Your task to perform on an android device: What's the weather? Image 0: 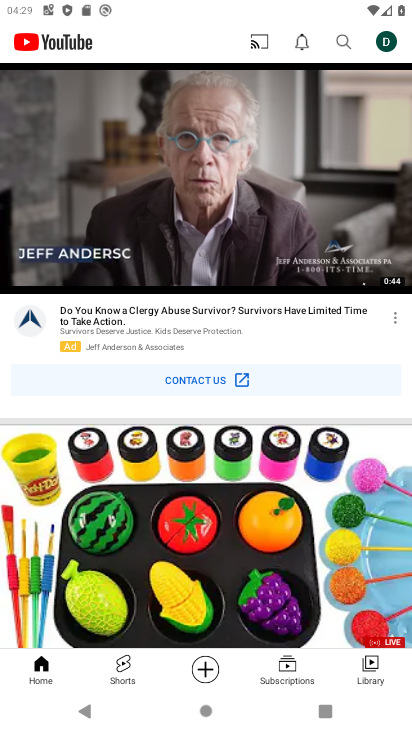
Step 0: press home button
Your task to perform on an android device: What's the weather? Image 1: 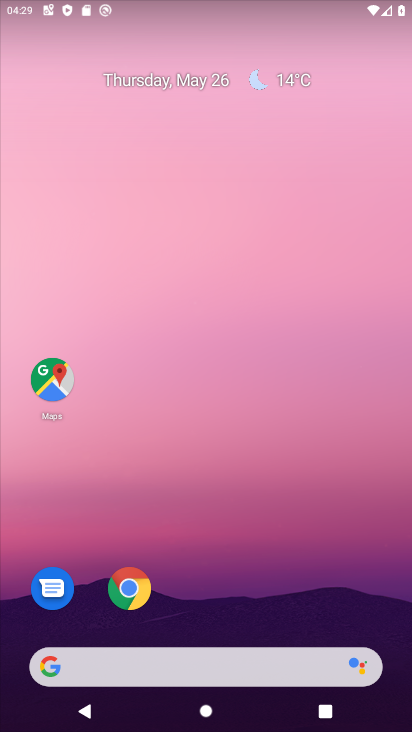
Step 1: click (250, 661)
Your task to perform on an android device: What's the weather? Image 2: 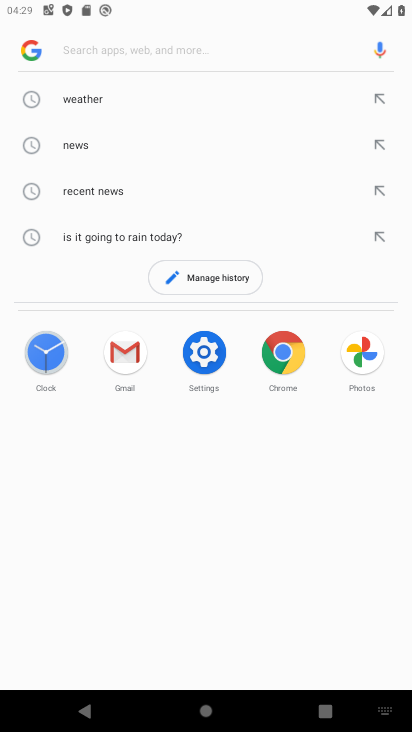
Step 2: click (181, 111)
Your task to perform on an android device: What's the weather? Image 3: 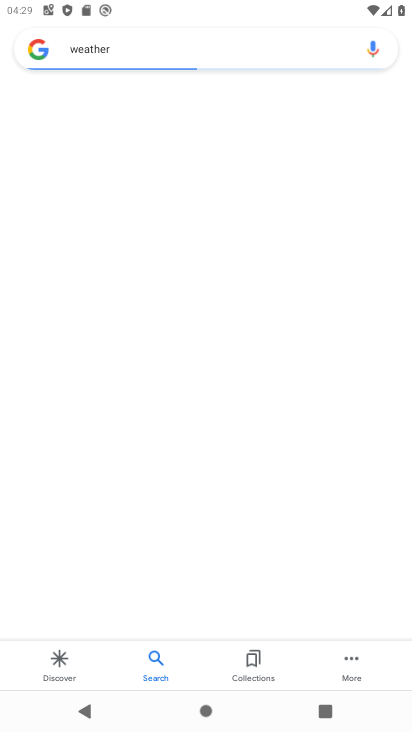
Step 3: task complete